Your task to perform on an android device: Open battery settings Image 0: 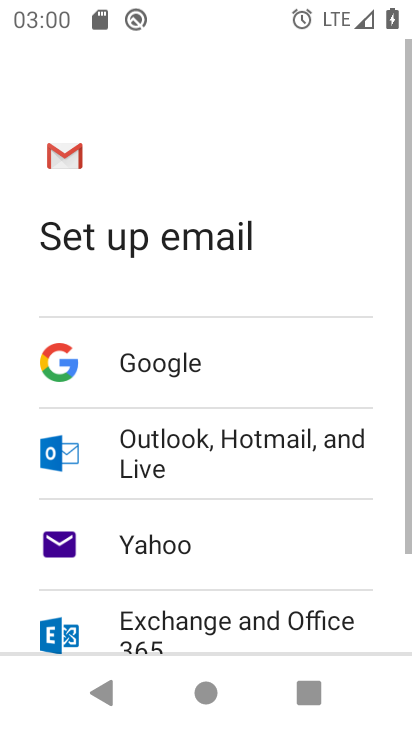
Step 0: press home button
Your task to perform on an android device: Open battery settings Image 1: 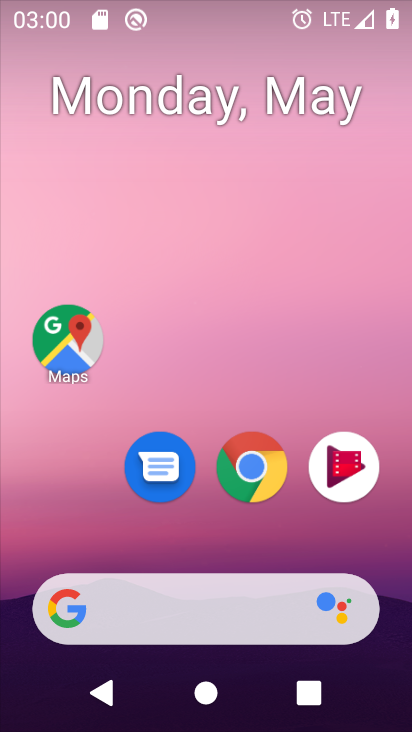
Step 1: drag from (130, 534) to (201, 192)
Your task to perform on an android device: Open battery settings Image 2: 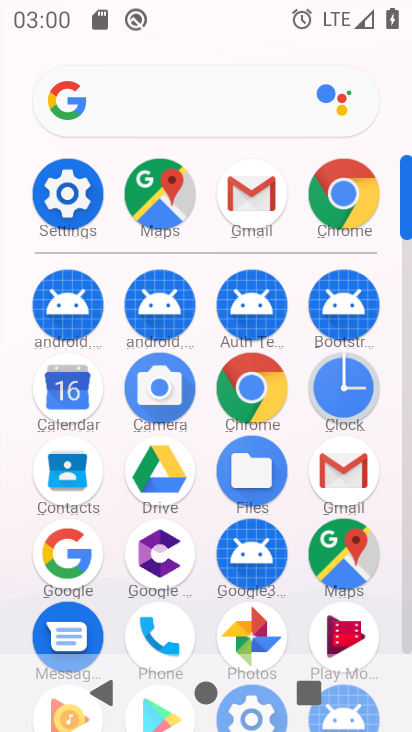
Step 2: click (59, 164)
Your task to perform on an android device: Open battery settings Image 3: 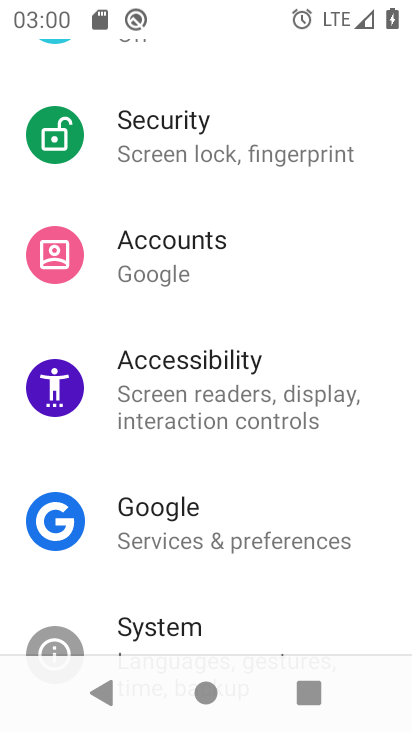
Step 3: drag from (210, 177) to (153, 573)
Your task to perform on an android device: Open battery settings Image 4: 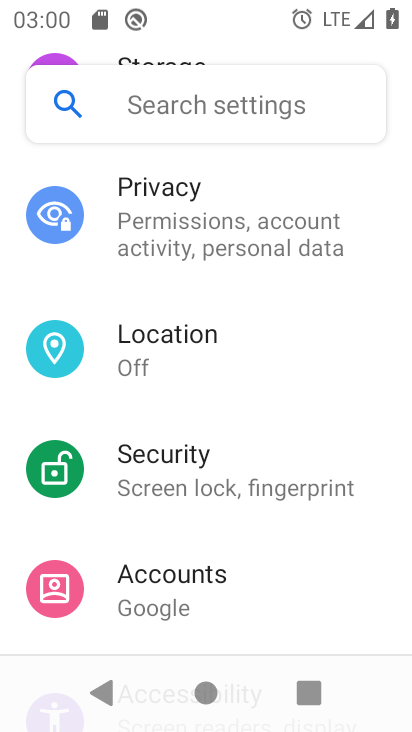
Step 4: drag from (230, 231) to (199, 599)
Your task to perform on an android device: Open battery settings Image 5: 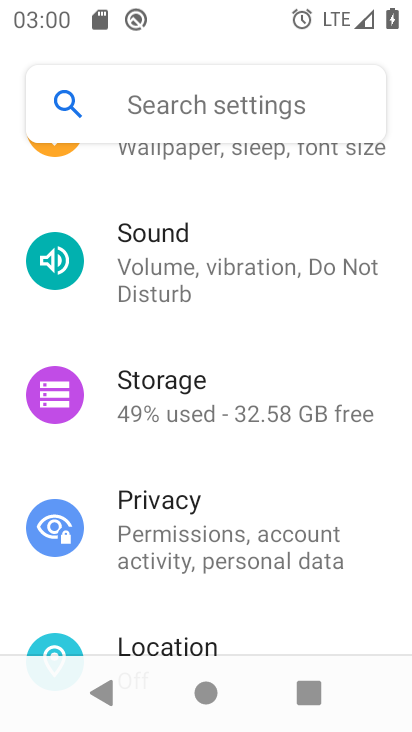
Step 5: drag from (224, 211) to (154, 538)
Your task to perform on an android device: Open battery settings Image 6: 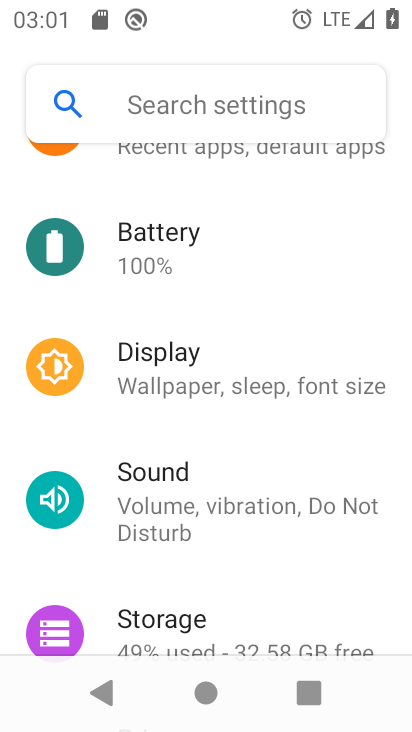
Step 6: click (204, 242)
Your task to perform on an android device: Open battery settings Image 7: 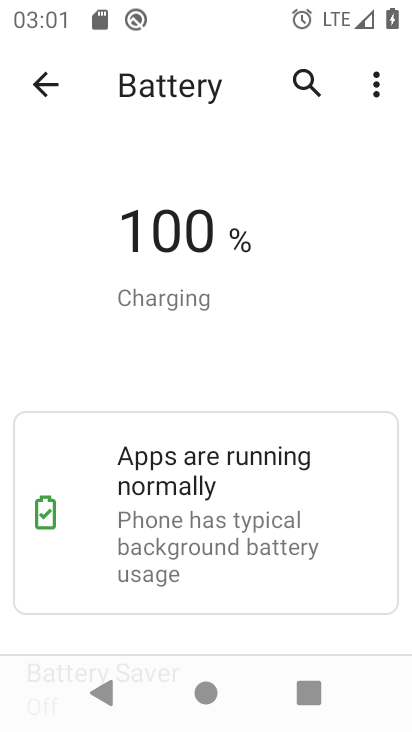
Step 7: task complete